Your task to perform on an android device: Search for razer huntsman on target.com, select the first entry, add it to the cart, then select checkout. Image 0: 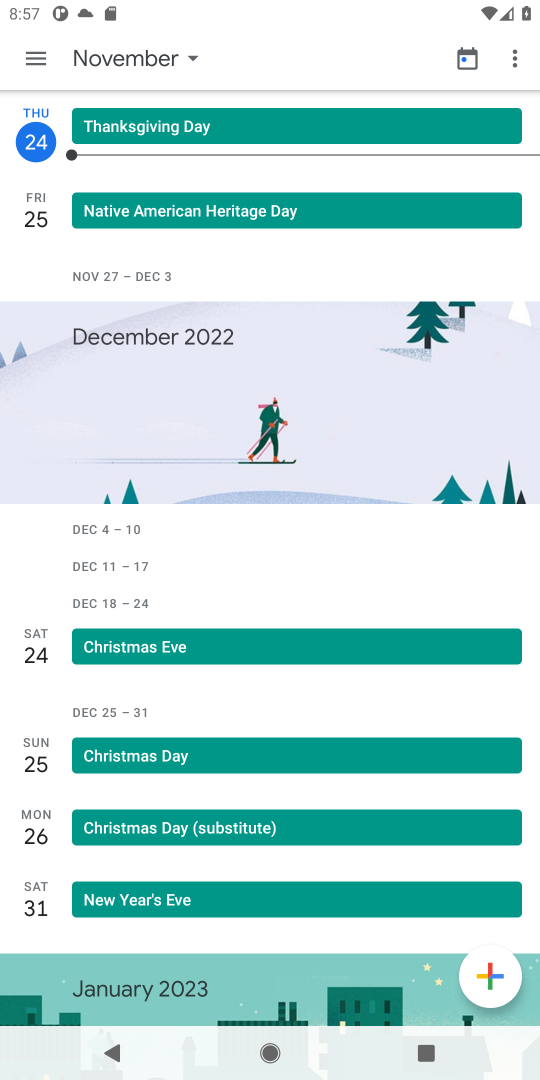
Step 0: press home button
Your task to perform on an android device: Search for razer huntsman on target.com, select the first entry, add it to the cart, then select checkout. Image 1: 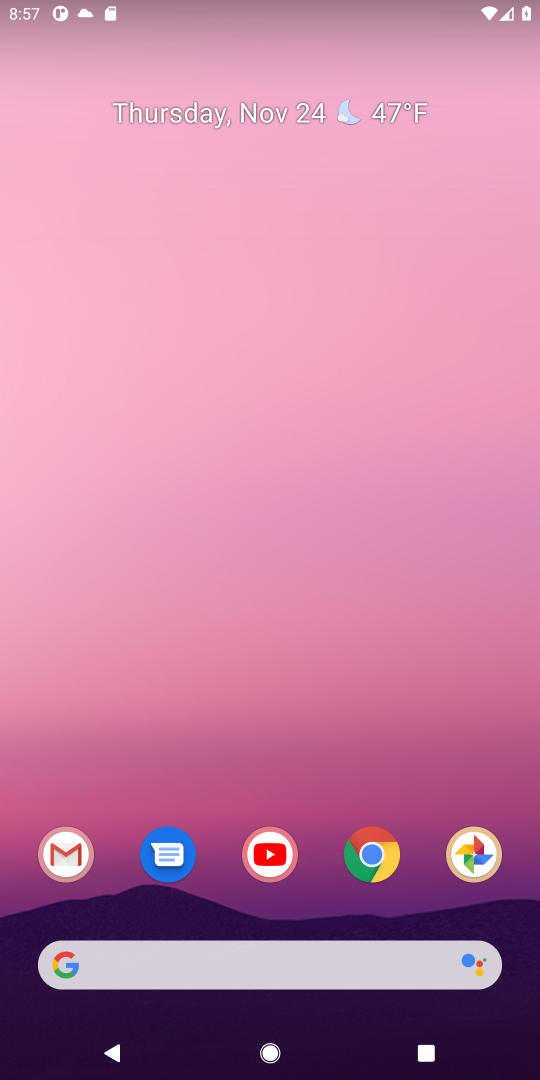
Step 1: click (377, 862)
Your task to perform on an android device: Search for razer huntsman on target.com, select the first entry, add it to the cart, then select checkout. Image 2: 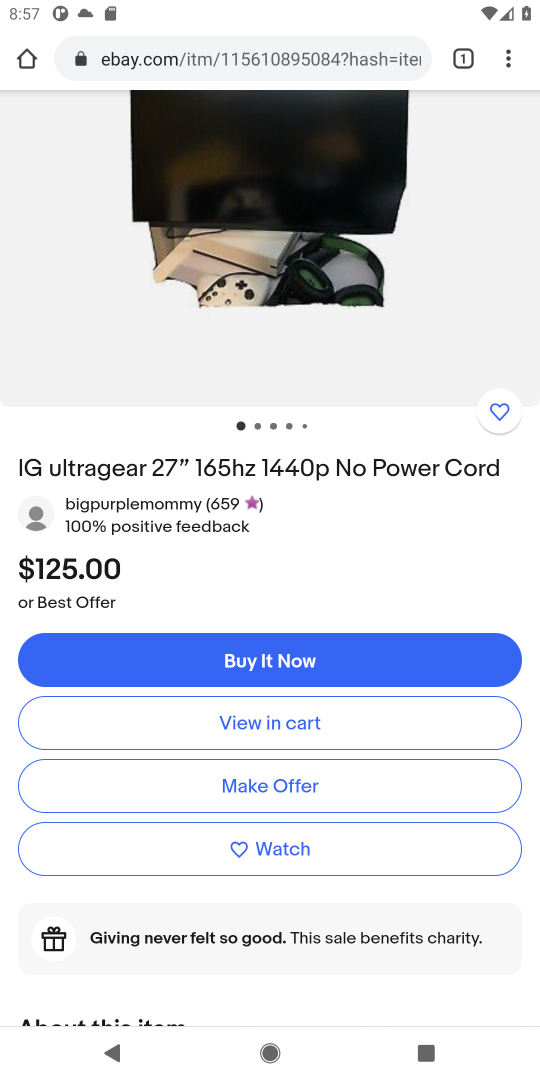
Step 2: click (214, 50)
Your task to perform on an android device: Search for razer huntsman on target.com, select the first entry, add it to the cart, then select checkout. Image 3: 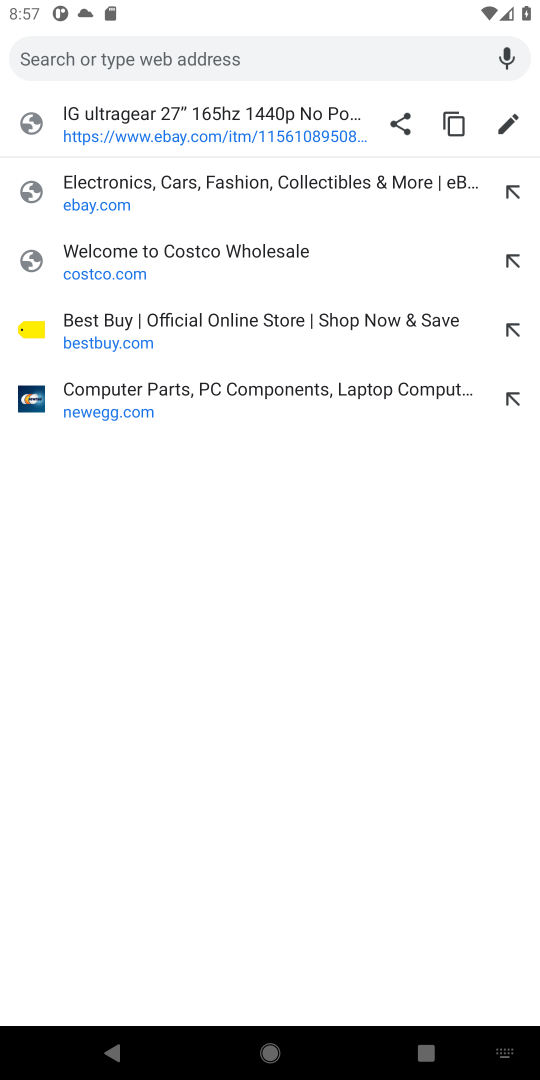
Step 3: type "target.com"
Your task to perform on an android device: Search for razer huntsman on target.com, select the first entry, add it to the cart, then select checkout. Image 4: 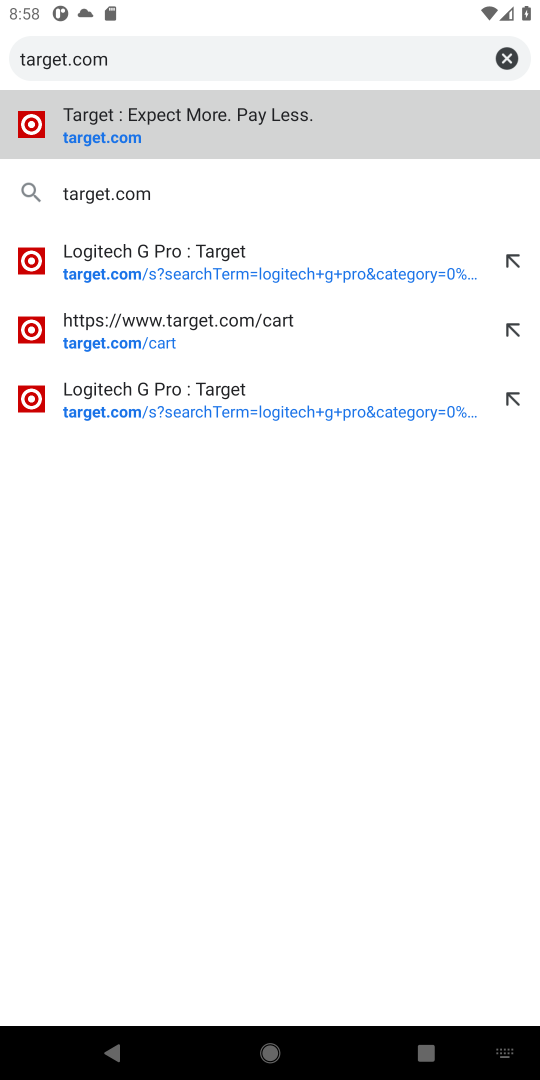
Step 4: click (79, 142)
Your task to perform on an android device: Search for razer huntsman on target.com, select the first entry, add it to the cart, then select checkout. Image 5: 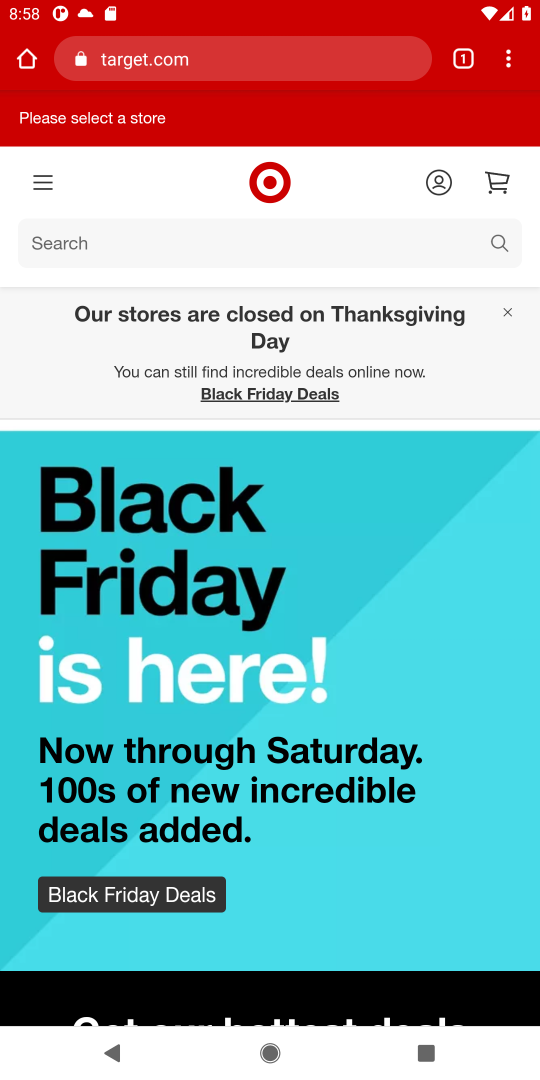
Step 5: click (496, 248)
Your task to perform on an android device: Search for razer huntsman on target.com, select the first entry, add it to the cart, then select checkout. Image 6: 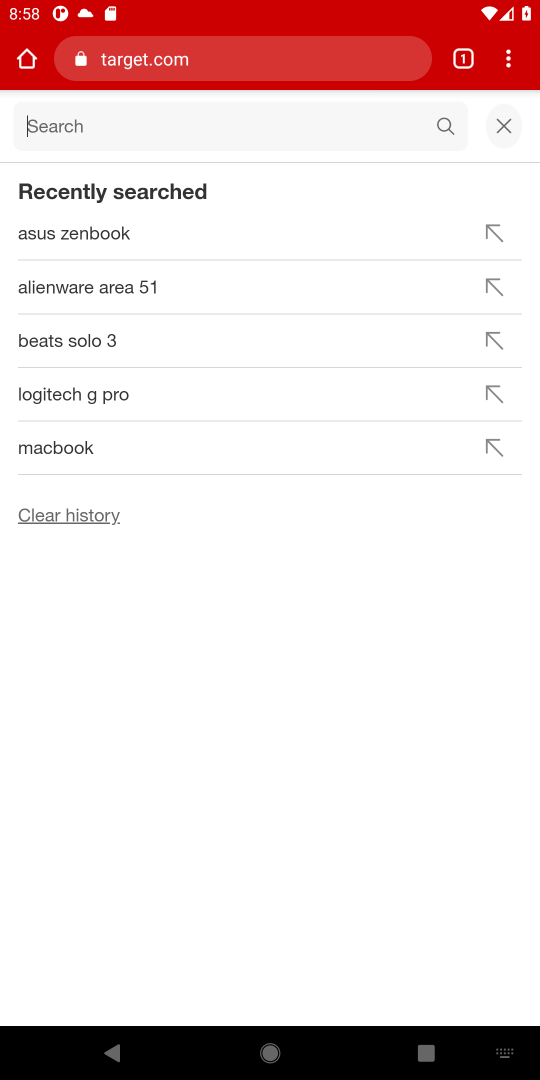
Step 6: type "razer huntsman"
Your task to perform on an android device: Search for razer huntsman on target.com, select the first entry, add it to the cart, then select checkout. Image 7: 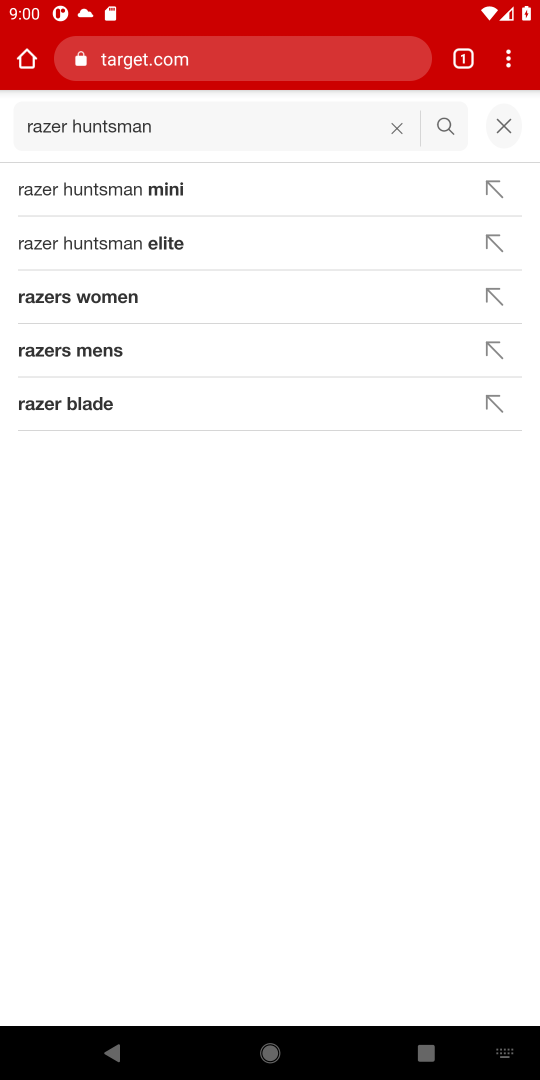
Step 7: click (436, 129)
Your task to perform on an android device: Search for razer huntsman on target.com, select the first entry, add it to the cart, then select checkout. Image 8: 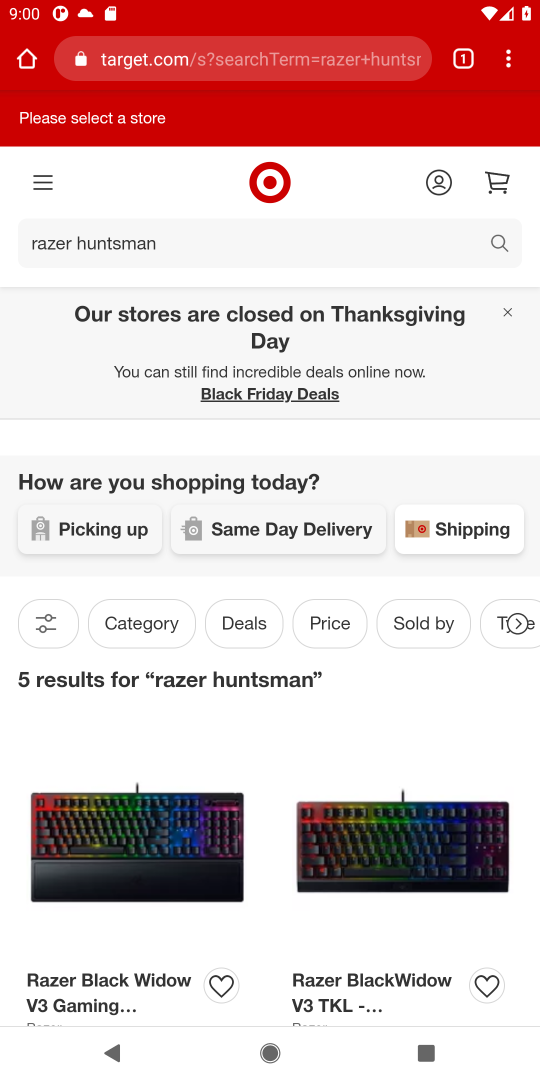
Step 8: task complete